Your task to perform on an android device: Do I have any events tomorrow? Image 0: 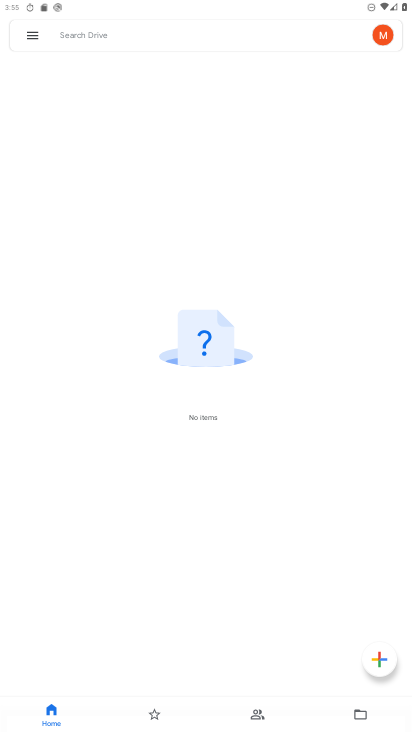
Step 0: press home button
Your task to perform on an android device: Do I have any events tomorrow? Image 1: 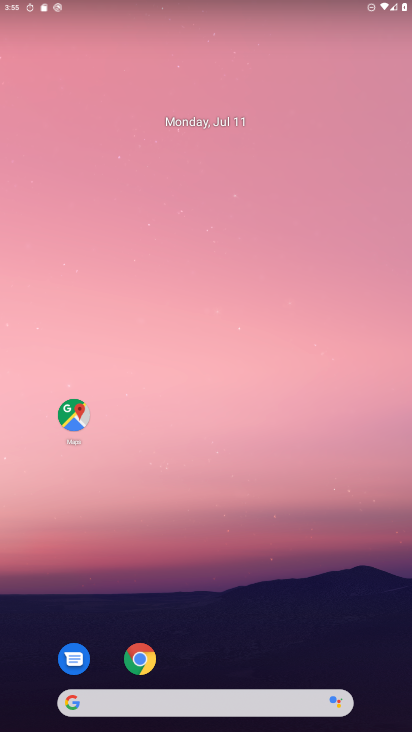
Step 1: drag from (233, 677) to (215, 121)
Your task to perform on an android device: Do I have any events tomorrow? Image 2: 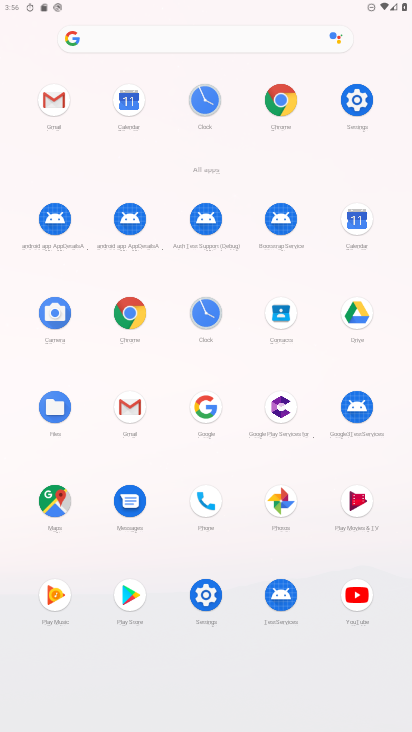
Step 2: click (342, 215)
Your task to perform on an android device: Do I have any events tomorrow? Image 3: 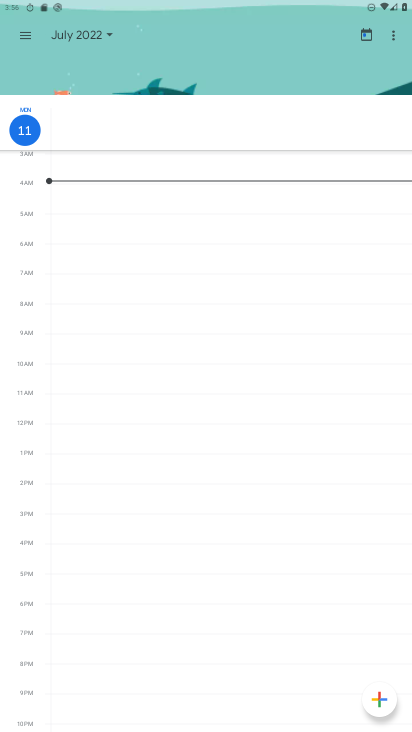
Step 3: click (21, 17)
Your task to perform on an android device: Do I have any events tomorrow? Image 4: 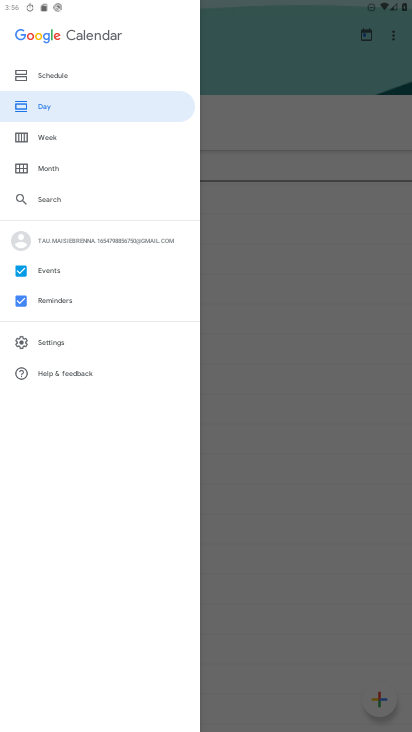
Step 4: click (66, 102)
Your task to perform on an android device: Do I have any events tomorrow? Image 5: 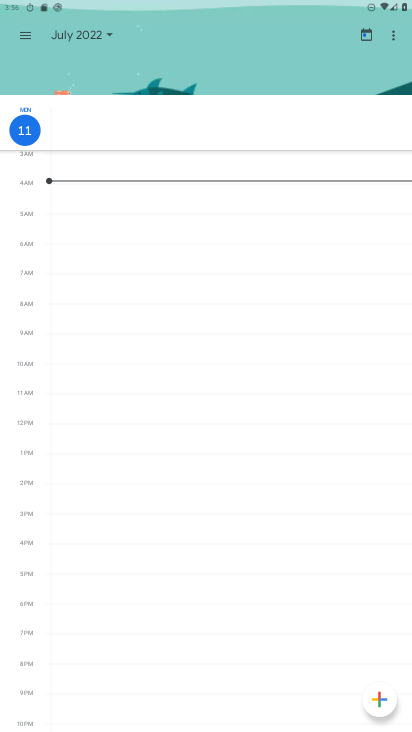
Step 5: drag from (110, 596) to (150, 197)
Your task to perform on an android device: Do I have any events tomorrow? Image 6: 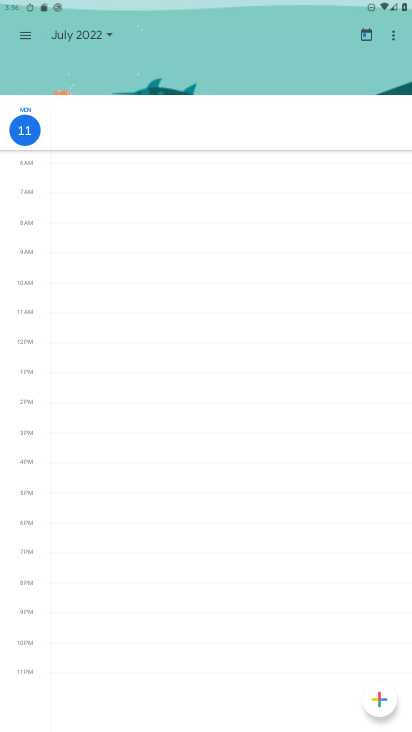
Step 6: click (58, 57)
Your task to perform on an android device: Do I have any events tomorrow? Image 7: 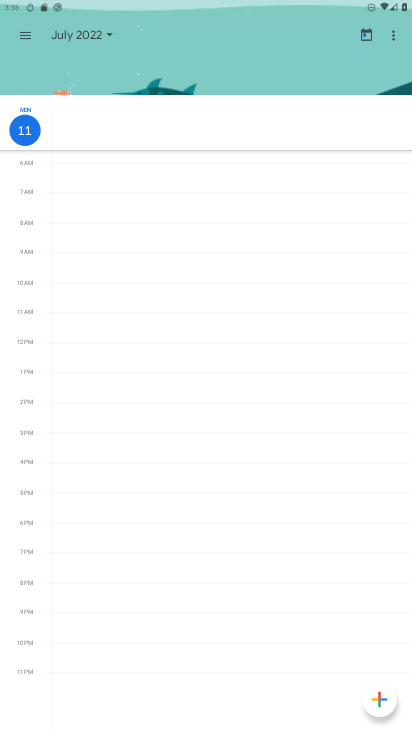
Step 7: click (40, 39)
Your task to perform on an android device: Do I have any events tomorrow? Image 8: 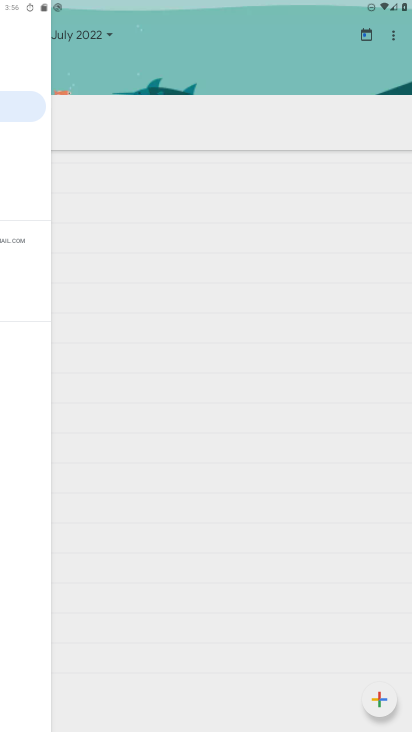
Step 8: click (25, 33)
Your task to perform on an android device: Do I have any events tomorrow? Image 9: 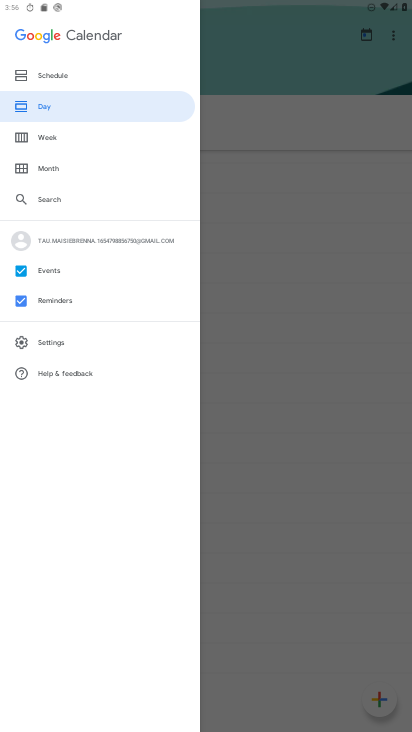
Step 9: click (61, 169)
Your task to perform on an android device: Do I have any events tomorrow? Image 10: 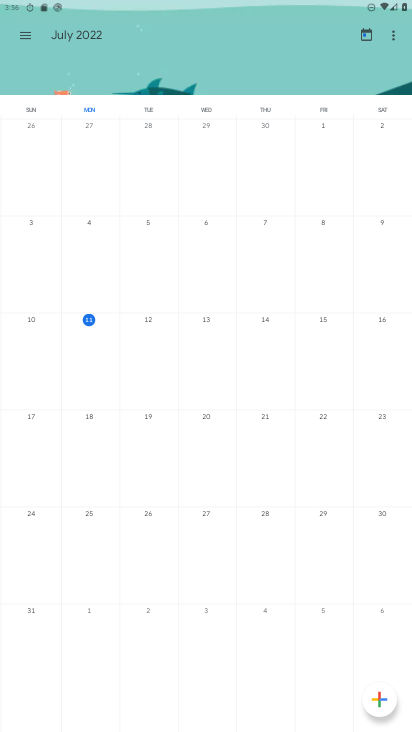
Step 10: click (156, 350)
Your task to perform on an android device: Do I have any events tomorrow? Image 11: 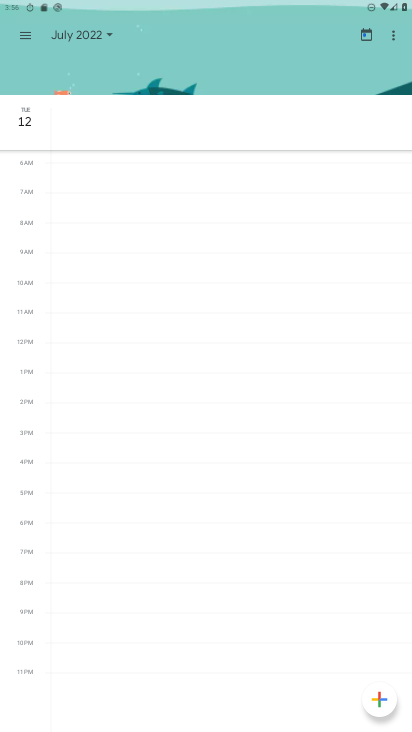
Step 11: task complete